Your task to perform on an android device: add a contact Image 0: 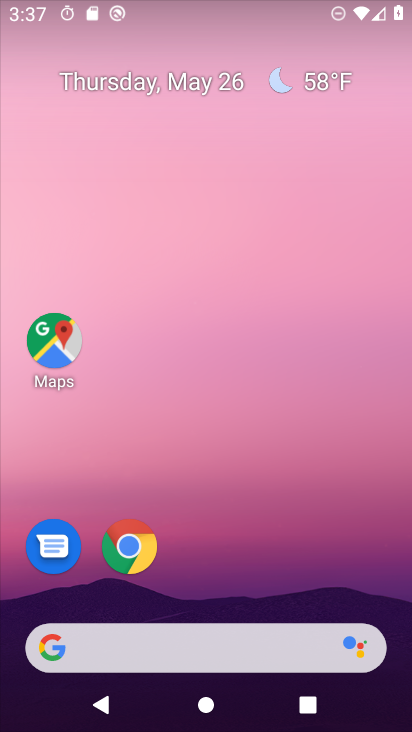
Step 0: press home button
Your task to perform on an android device: add a contact Image 1: 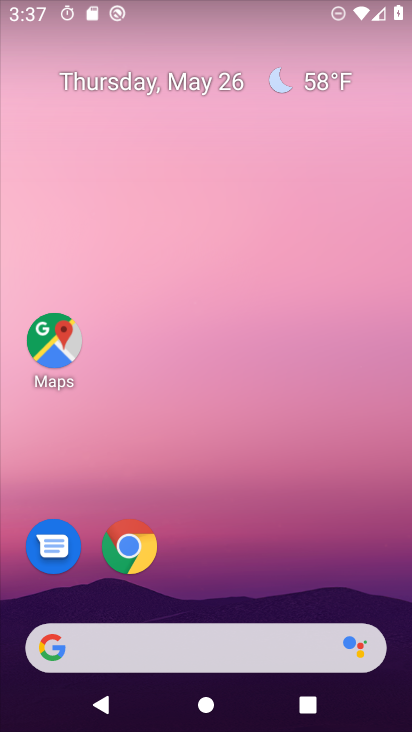
Step 1: drag from (212, 563) to (243, 118)
Your task to perform on an android device: add a contact Image 2: 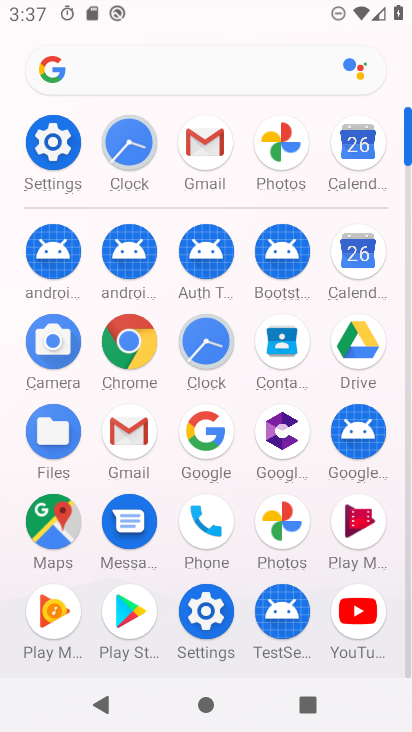
Step 2: click (273, 340)
Your task to perform on an android device: add a contact Image 3: 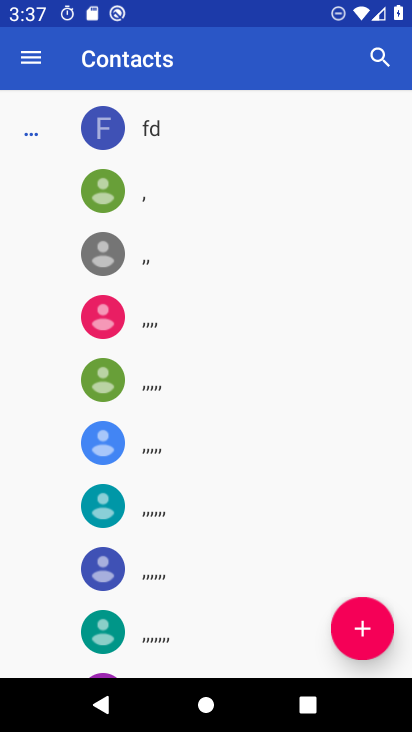
Step 3: drag from (185, 591) to (258, 147)
Your task to perform on an android device: add a contact Image 4: 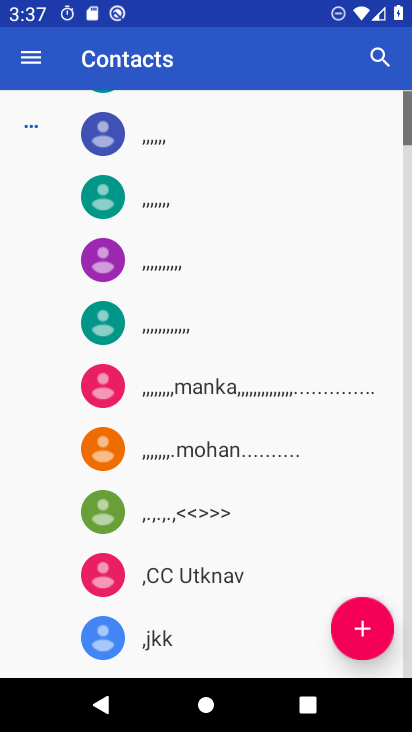
Step 4: click (365, 625)
Your task to perform on an android device: add a contact Image 5: 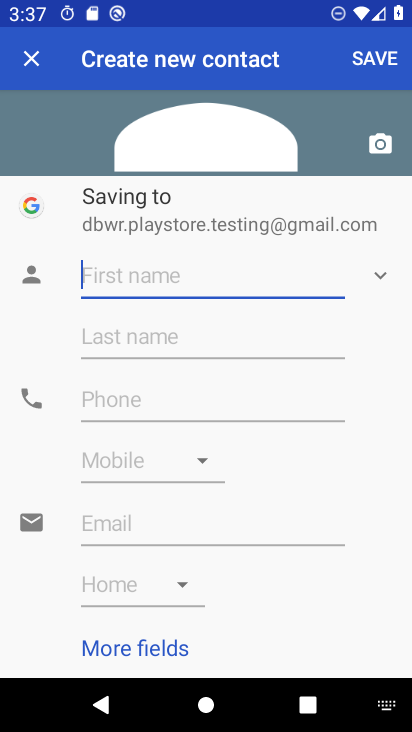
Step 5: type "bvyfctfrg"
Your task to perform on an android device: add a contact Image 6: 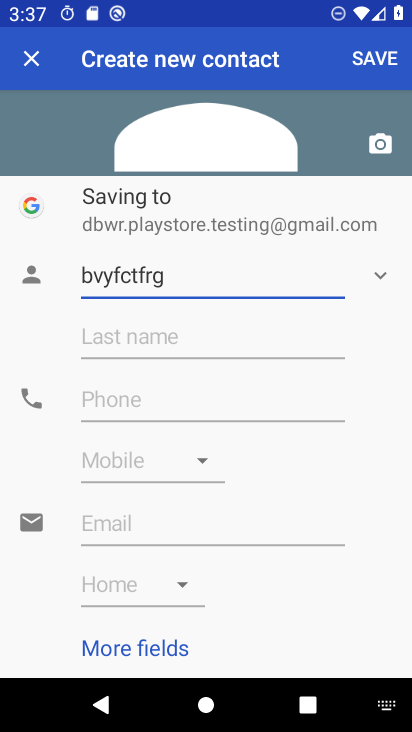
Step 6: click (351, 52)
Your task to perform on an android device: add a contact Image 7: 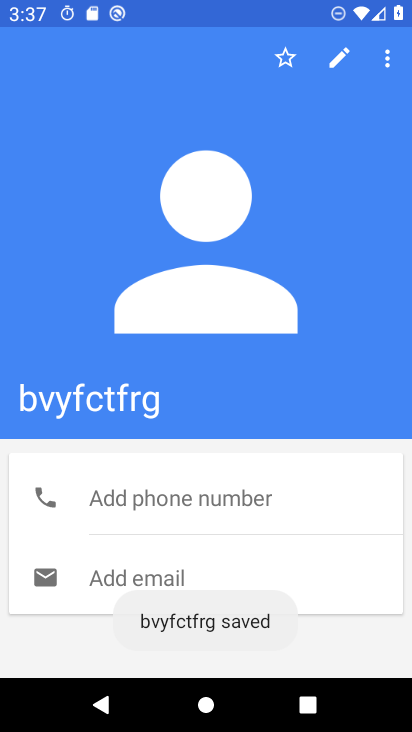
Step 7: task complete